Your task to perform on an android device: turn notification dots on Image 0: 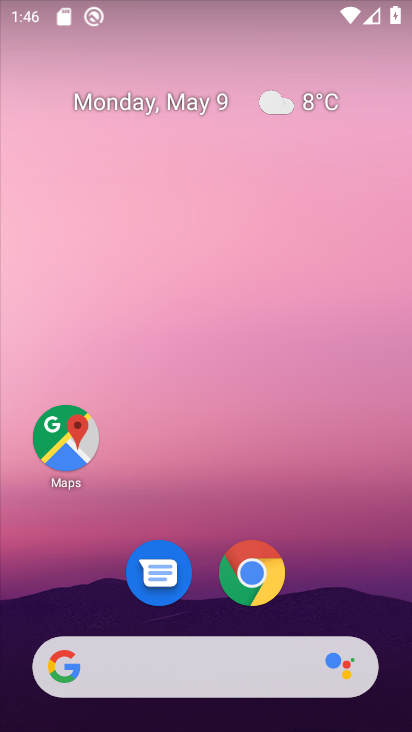
Step 0: drag from (200, 511) to (230, 84)
Your task to perform on an android device: turn notification dots on Image 1: 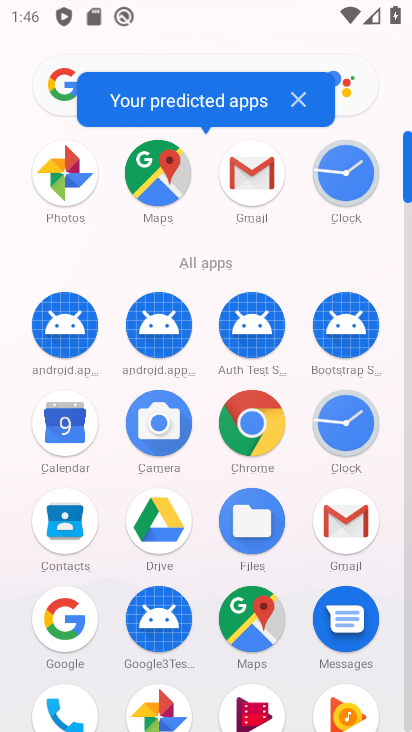
Step 1: drag from (204, 579) to (217, 125)
Your task to perform on an android device: turn notification dots on Image 2: 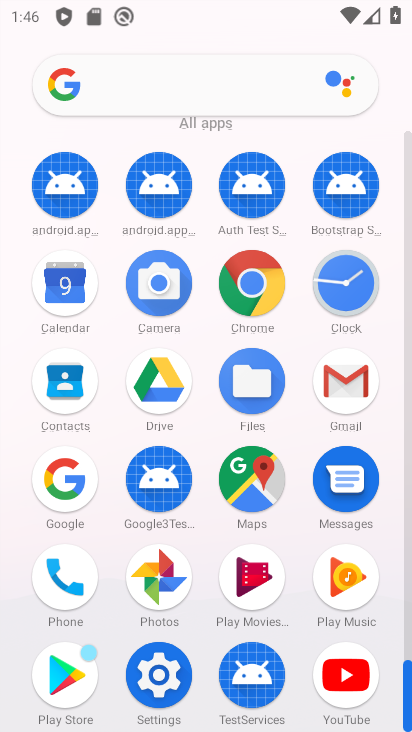
Step 2: click (165, 677)
Your task to perform on an android device: turn notification dots on Image 3: 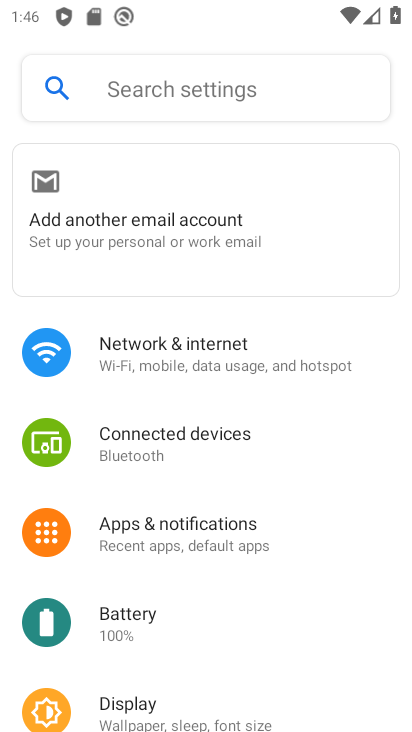
Step 3: drag from (229, 644) to (206, 509)
Your task to perform on an android device: turn notification dots on Image 4: 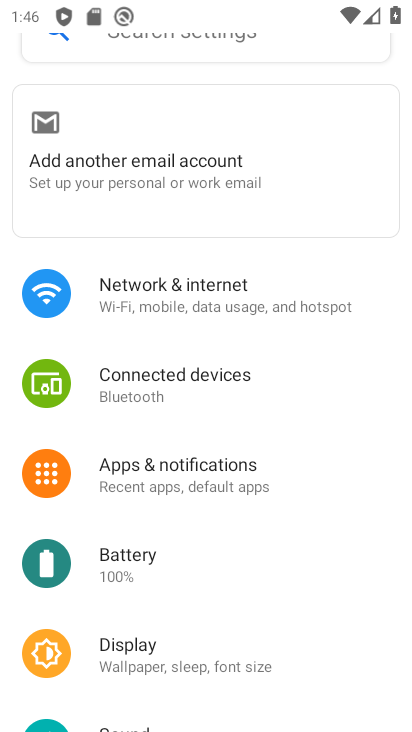
Step 4: click (207, 455)
Your task to perform on an android device: turn notification dots on Image 5: 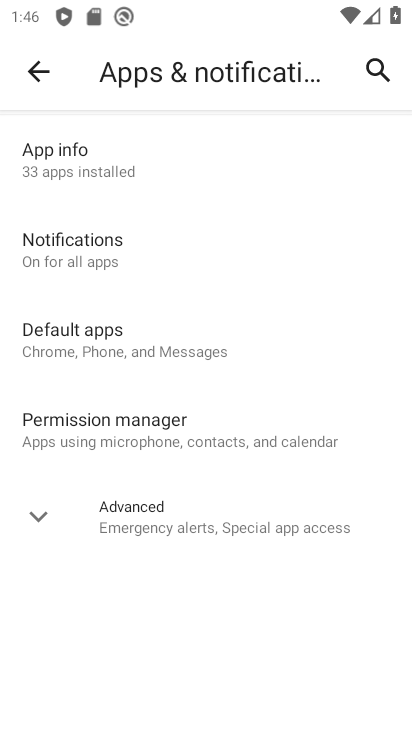
Step 5: click (70, 260)
Your task to perform on an android device: turn notification dots on Image 6: 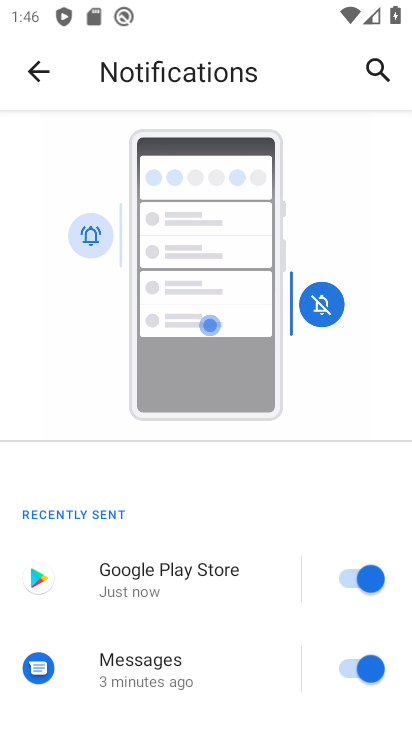
Step 6: press back button
Your task to perform on an android device: turn notification dots on Image 7: 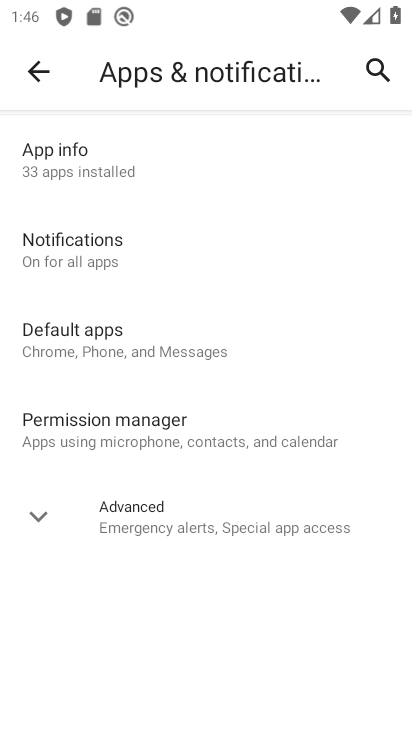
Step 7: click (67, 251)
Your task to perform on an android device: turn notification dots on Image 8: 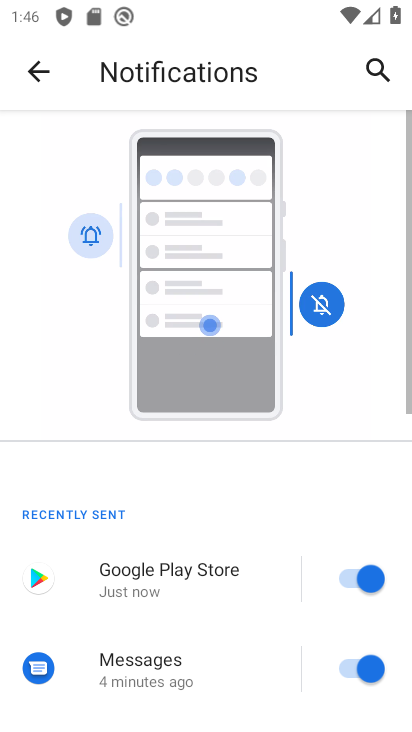
Step 8: drag from (150, 506) to (154, 9)
Your task to perform on an android device: turn notification dots on Image 9: 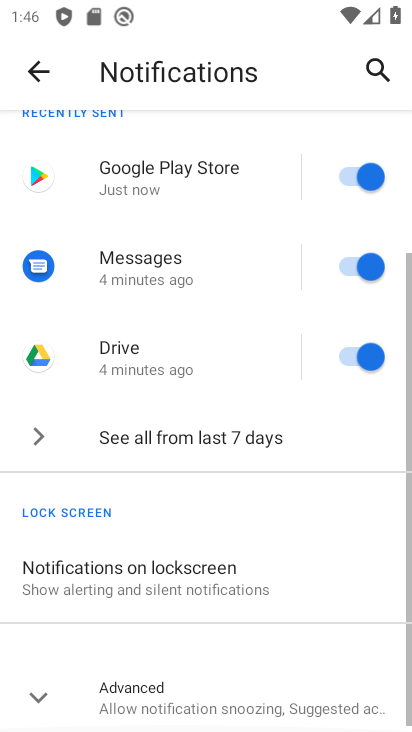
Step 9: click (103, 693)
Your task to perform on an android device: turn notification dots on Image 10: 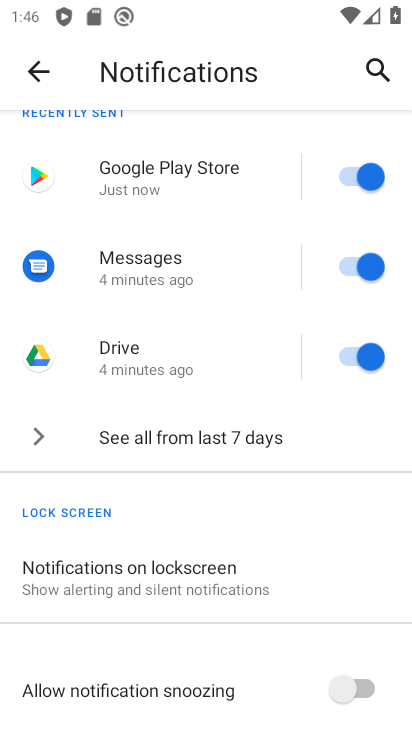
Step 10: task complete